Your task to perform on an android device: Show me popular games on the Play Store Image 0: 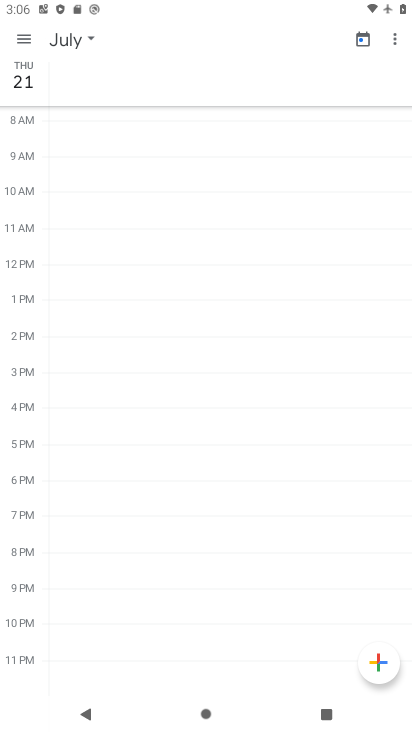
Step 0: press home button
Your task to perform on an android device: Show me popular games on the Play Store Image 1: 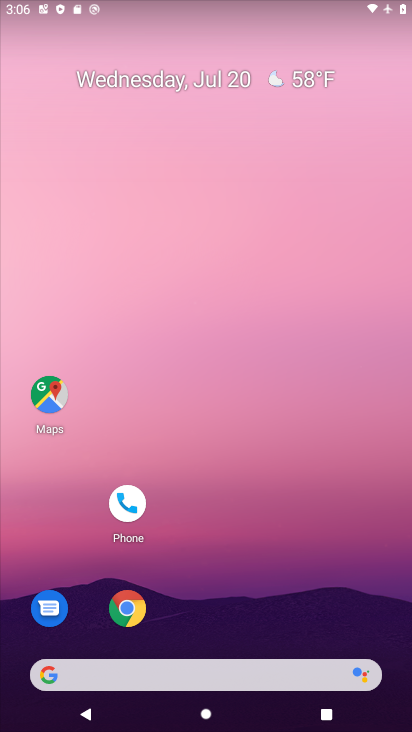
Step 1: drag from (312, 628) to (267, 65)
Your task to perform on an android device: Show me popular games on the Play Store Image 2: 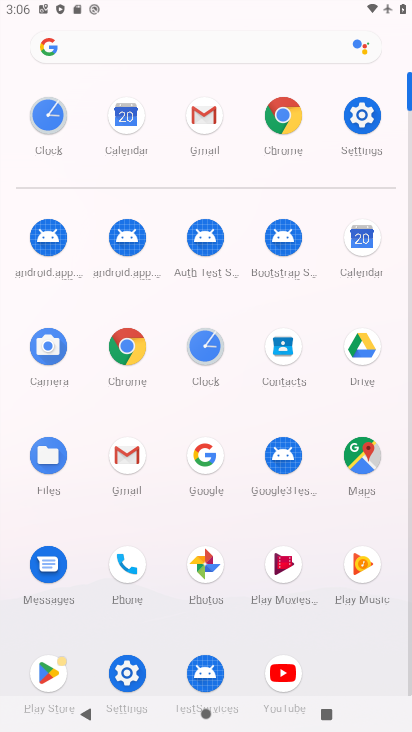
Step 2: click (49, 677)
Your task to perform on an android device: Show me popular games on the Play Store Image 3: 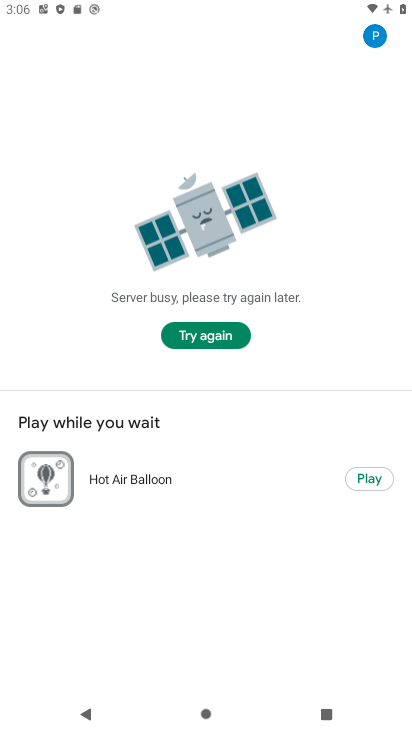
Step 3: task complete